Your task to perform on an android device: Go to privacy settings Image 0: 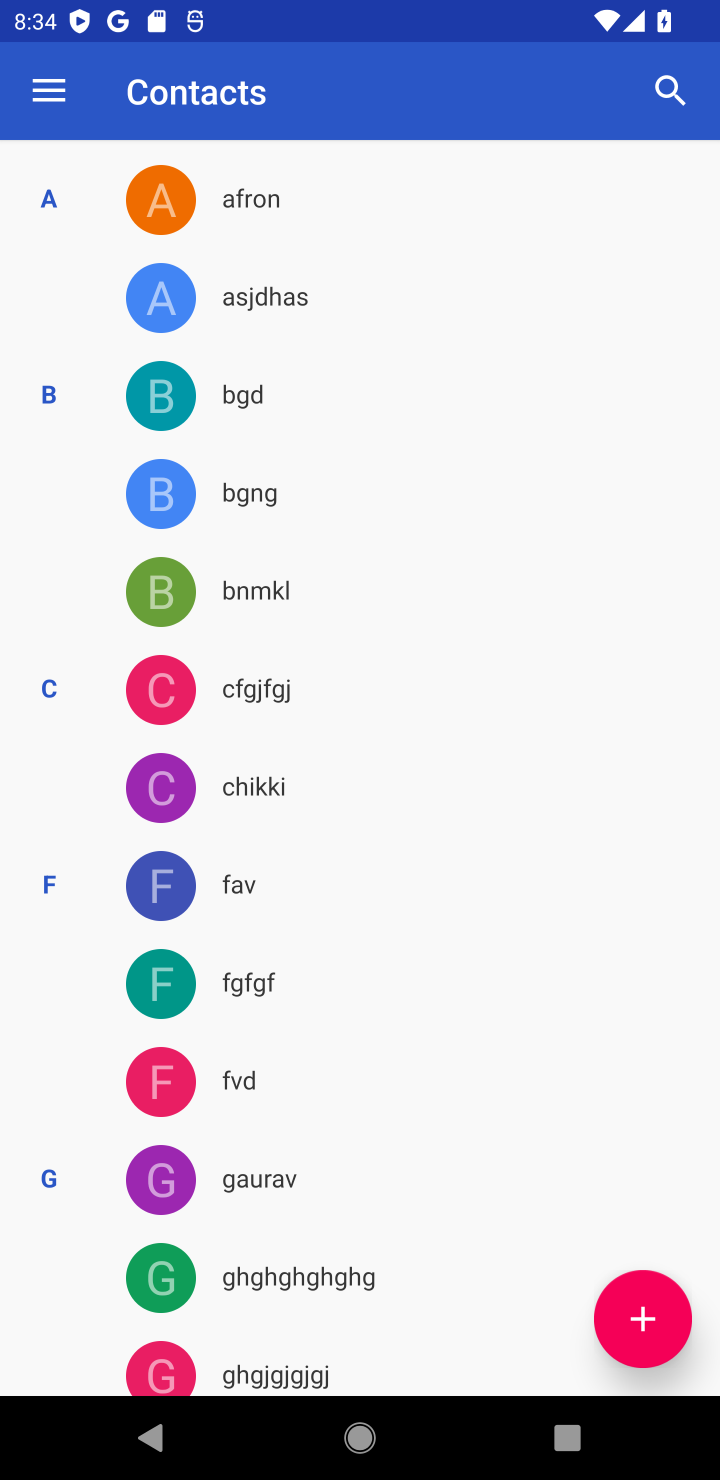
Step 0: press home button
Your task to perform on an android device: Go to privacy settings Image 1: 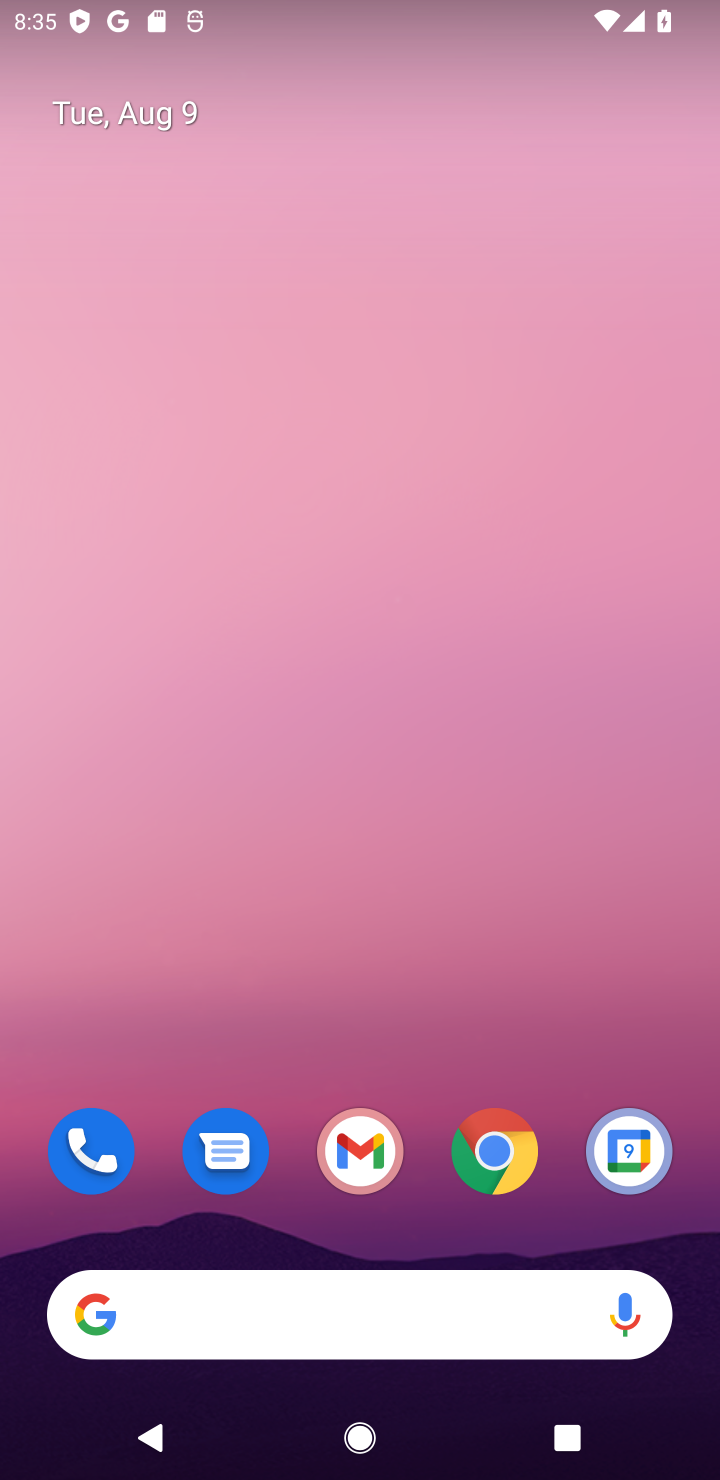
Step 1: drag from (426, 1187) to (371, 417)
Your task to perform on an android device: Go to privacy settings Image 2: 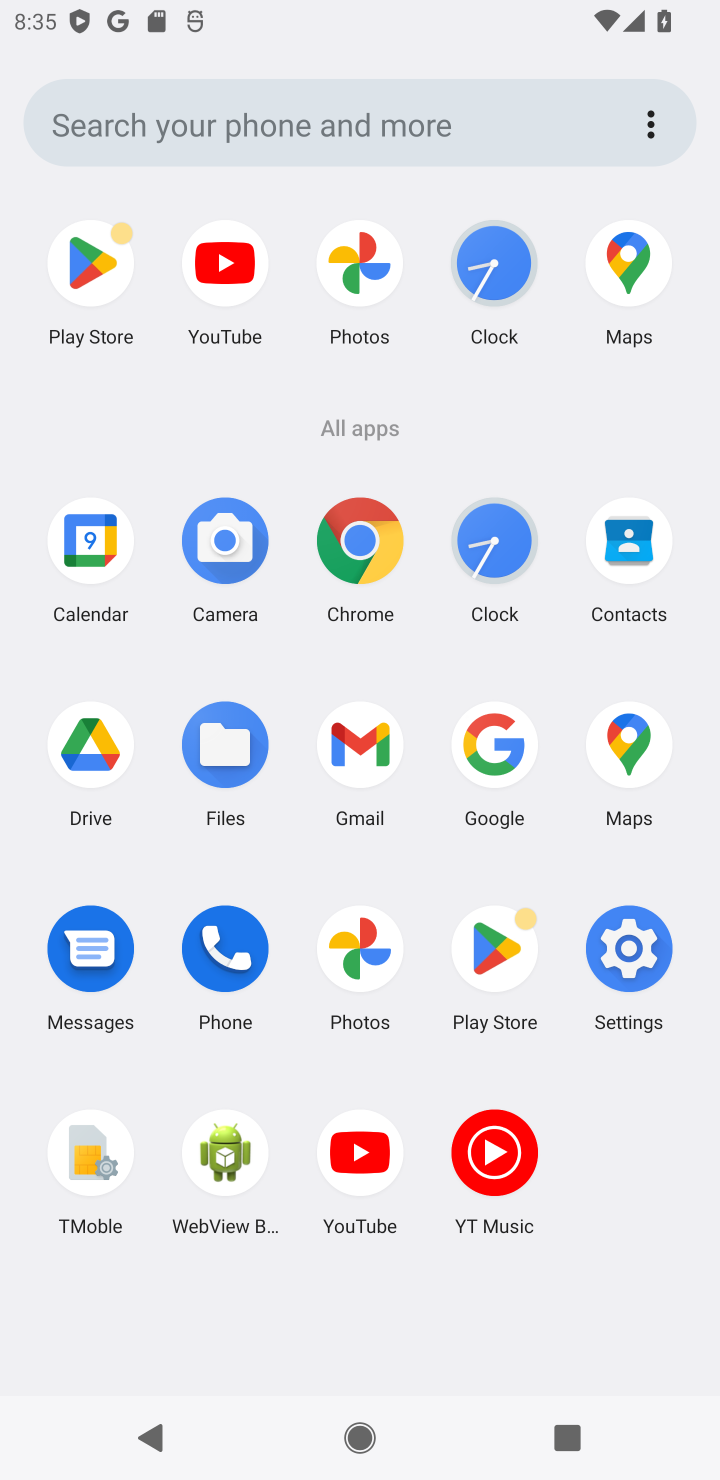
Step 2: click (620, 946)
Your task to perform on an android device: Go to privacy settings Image 3: 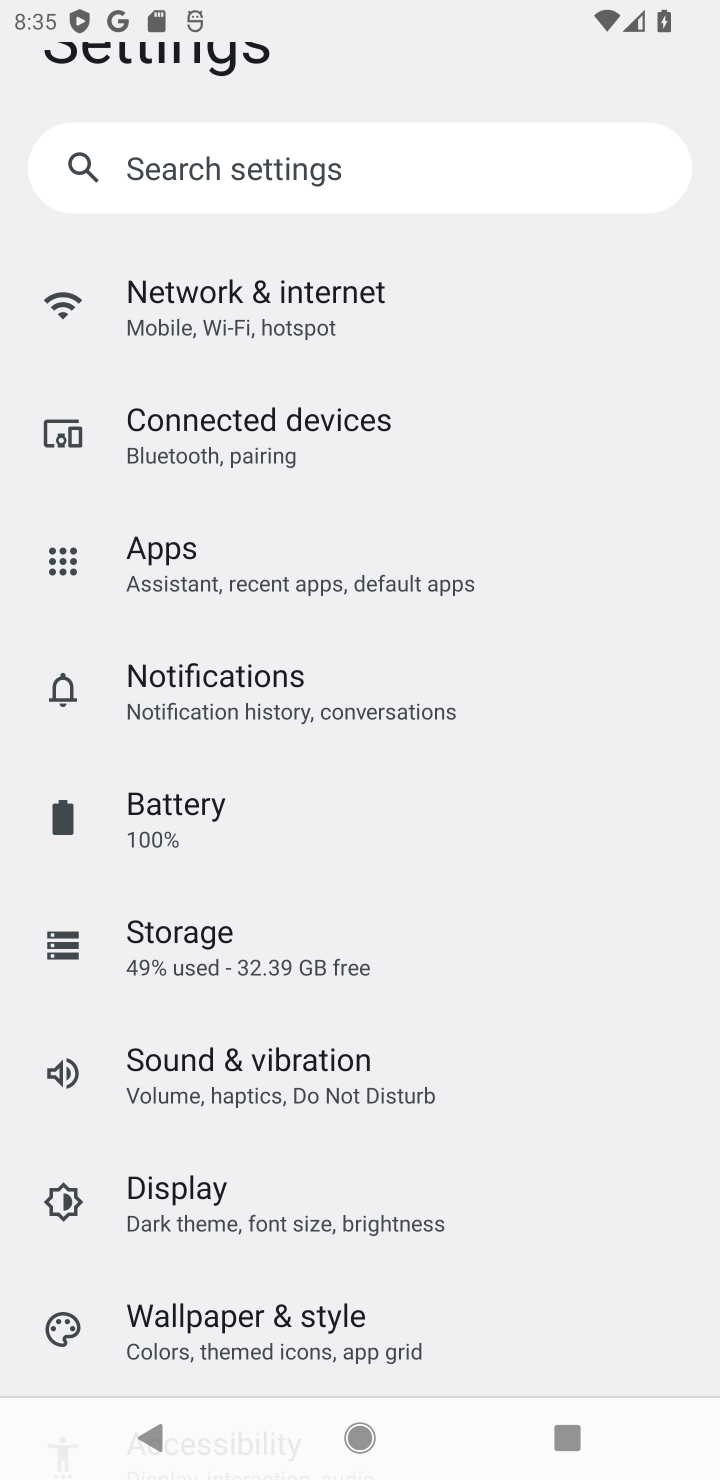
Step 3: drag from (601, 1003) to (550, 553)
Your task to perform on an android device: Go to privacy settings Image 4: 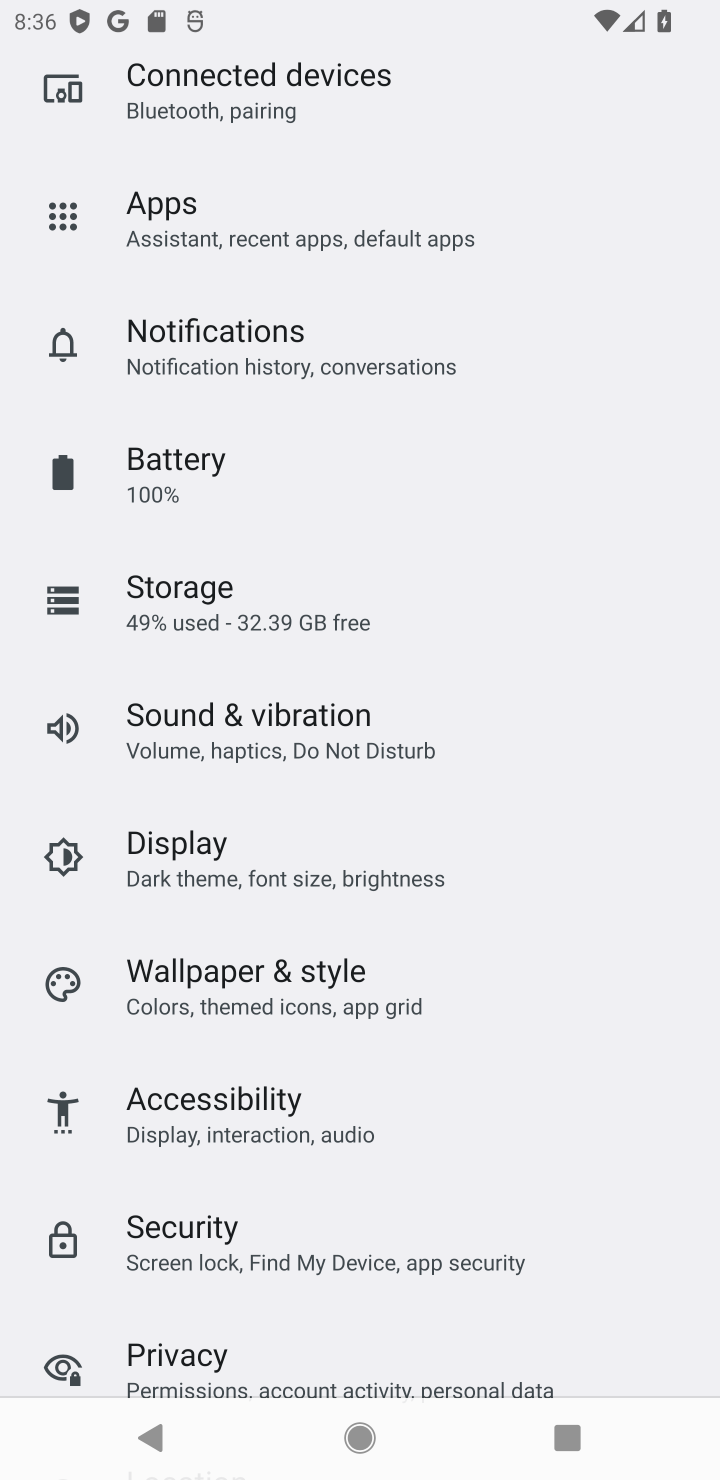
Step 4: click (303, 1368)
Your task to perform on an android device: Go to privacy settings Image 5: 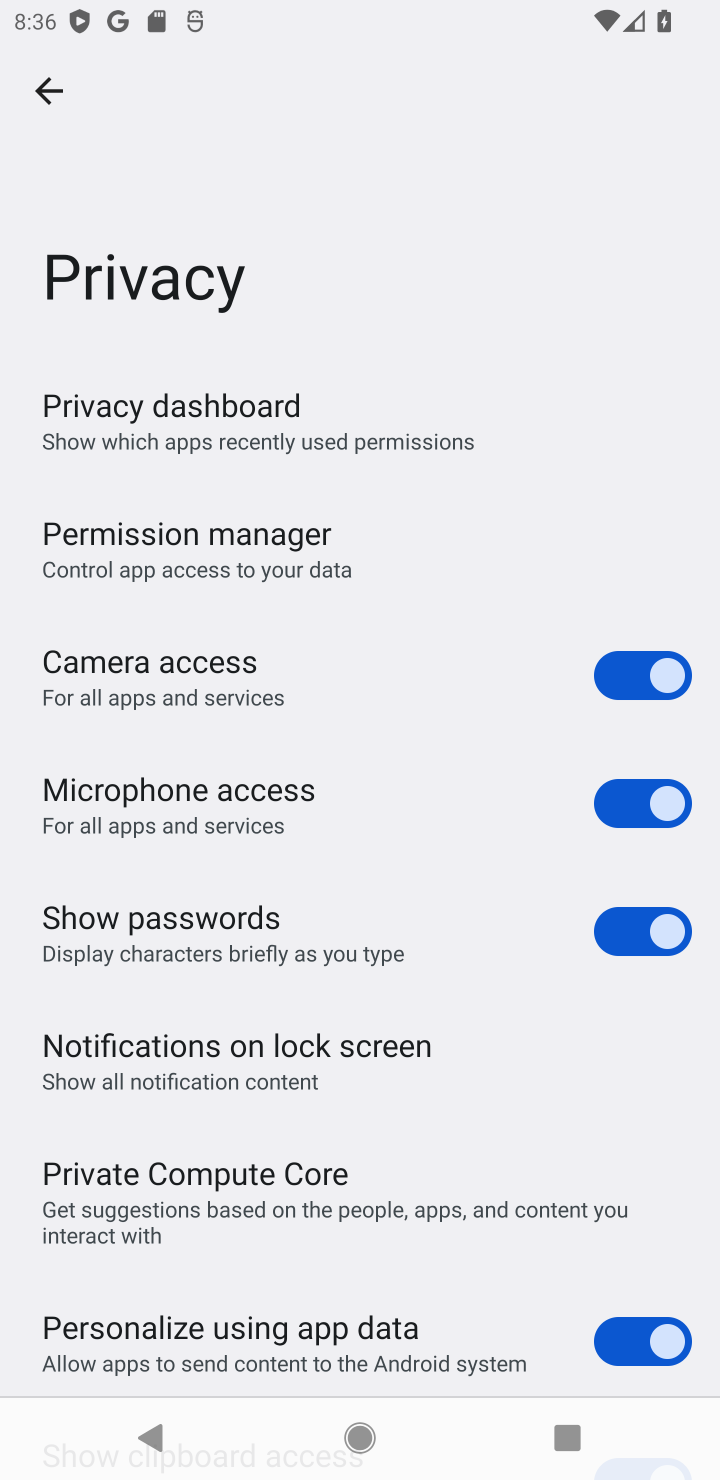
Step 5: task complete